Your task to perform on an android device: Show the shopping cart on ebay. Add logitech g903 to the cart on ebay, then select checkout. Image 0: 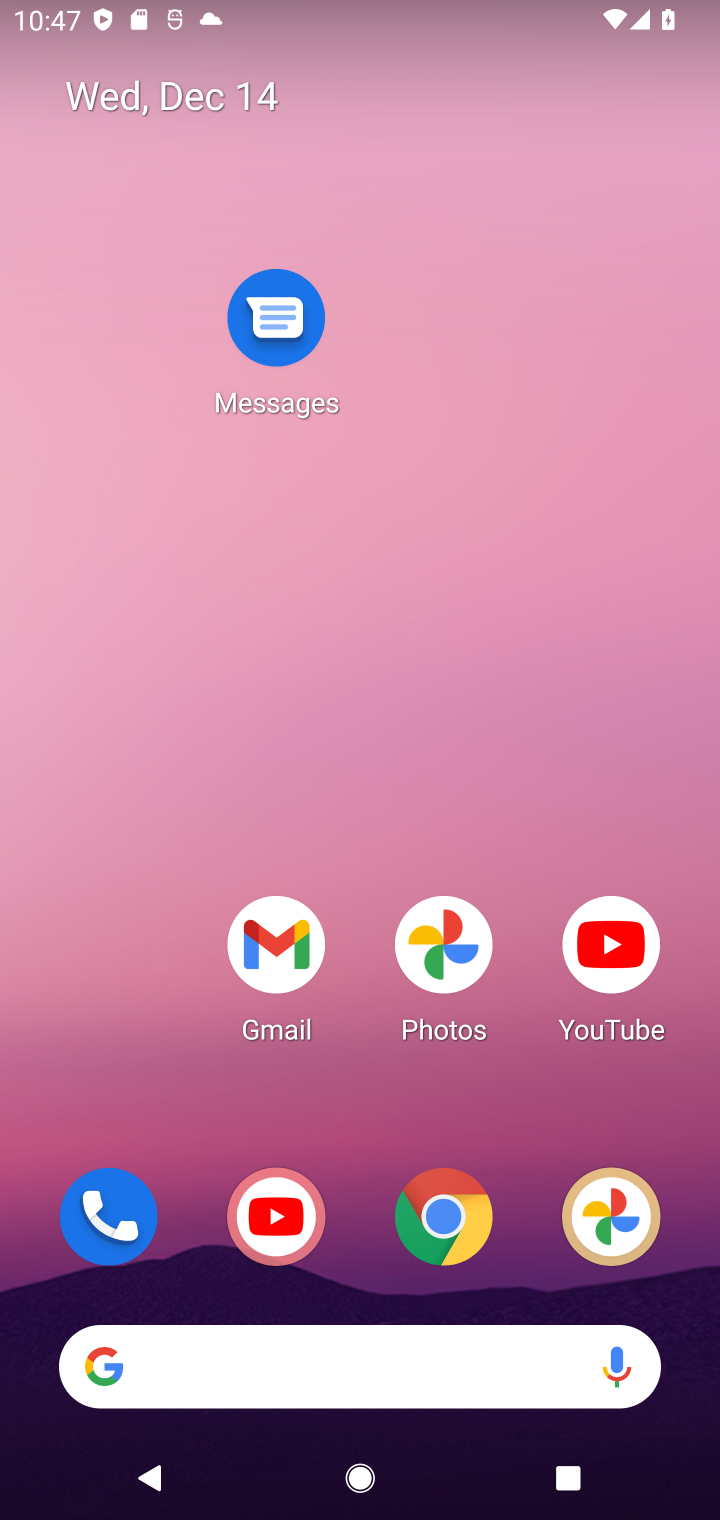
Step 0: drag from (292, 1257) to (437, 241)
Your task to perform on an android device: Show the shopping cart on ebay. Add logitech g903 to the cart on ebay, then select checkout. Image 1: 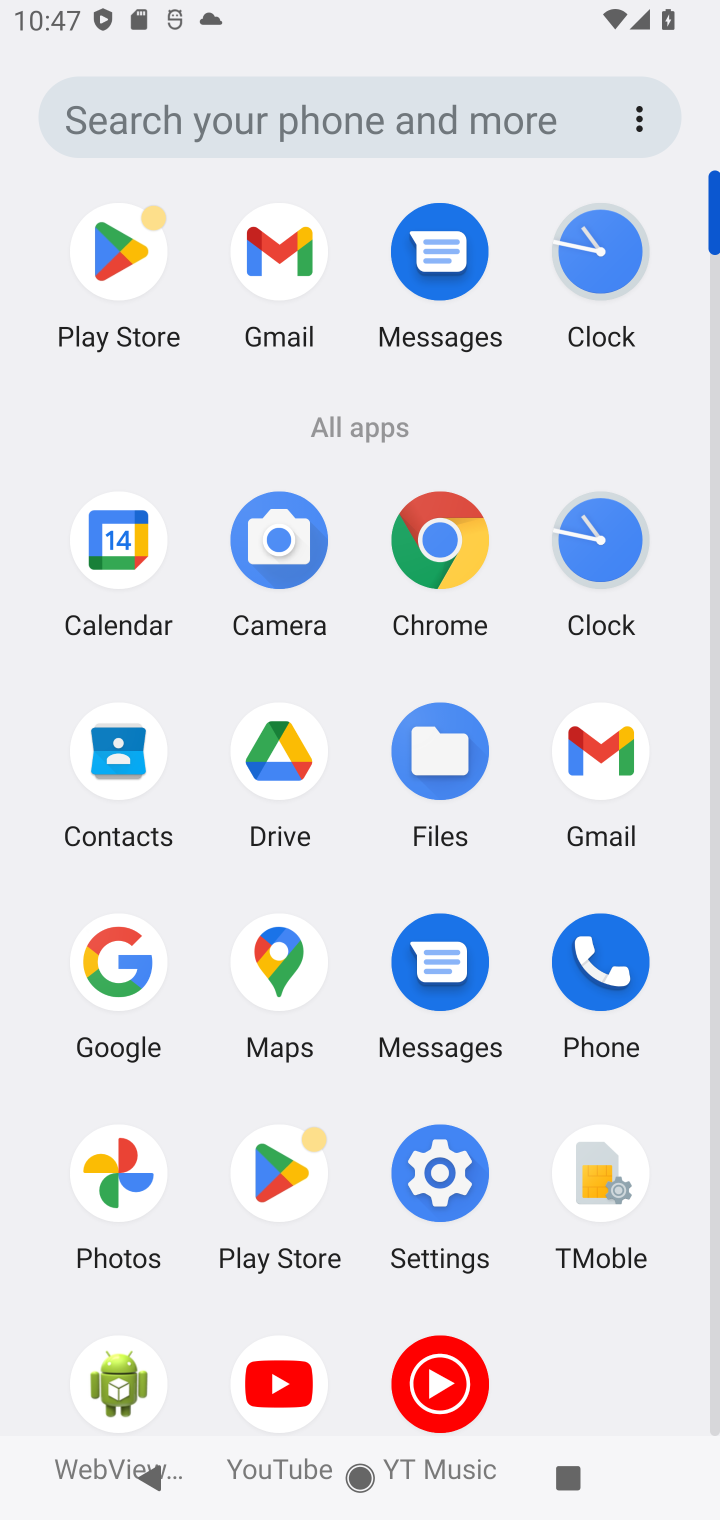
Step 1: click (114, 939)
Your task to perform on an android device: Show the shopping cart on ebay. Add logitech g903 to the cart on ebay, then select checkout. Image 2: 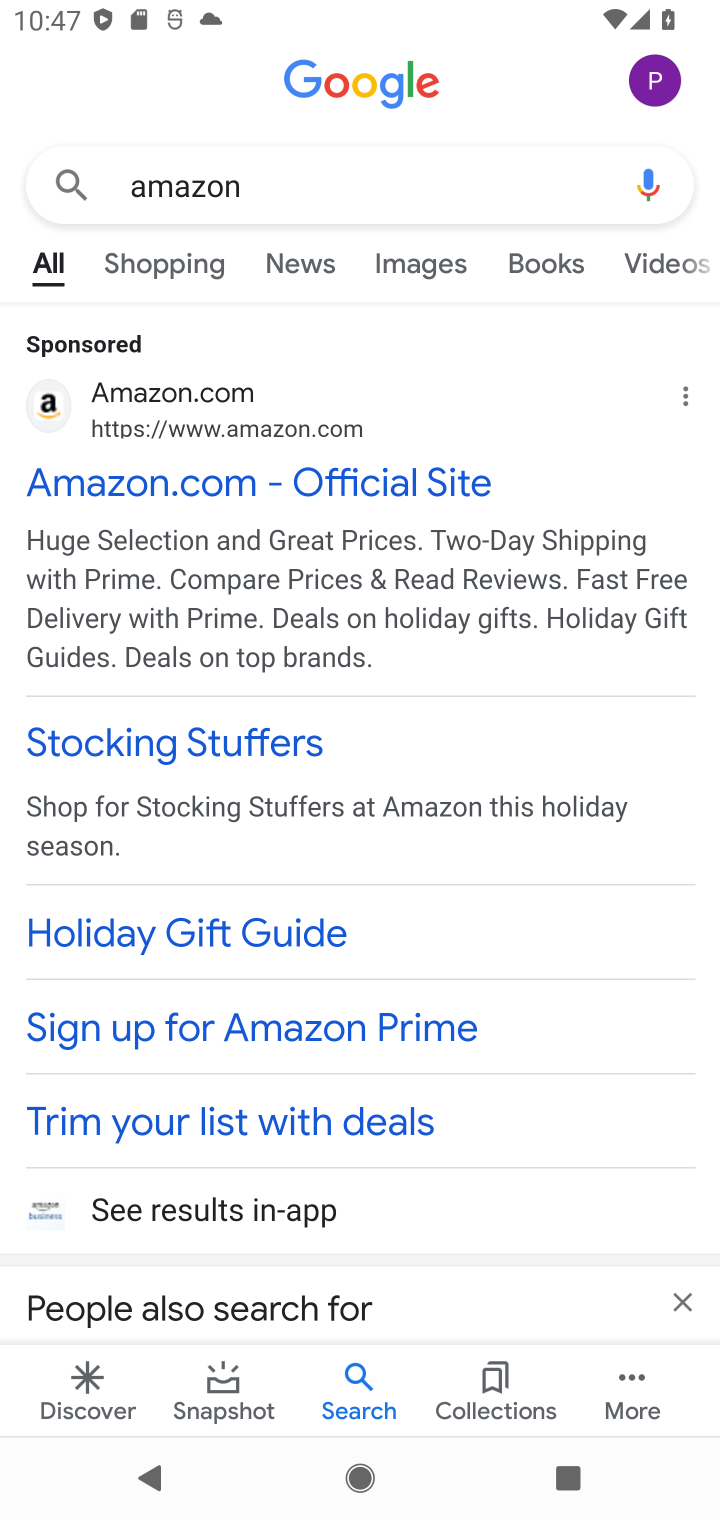
Step 2: click (186, 198)
Your task to perform on an android device: Show the shopping cart on ebay. Add logitech g903 to the cart on ebay, then select checkout. Image 3: 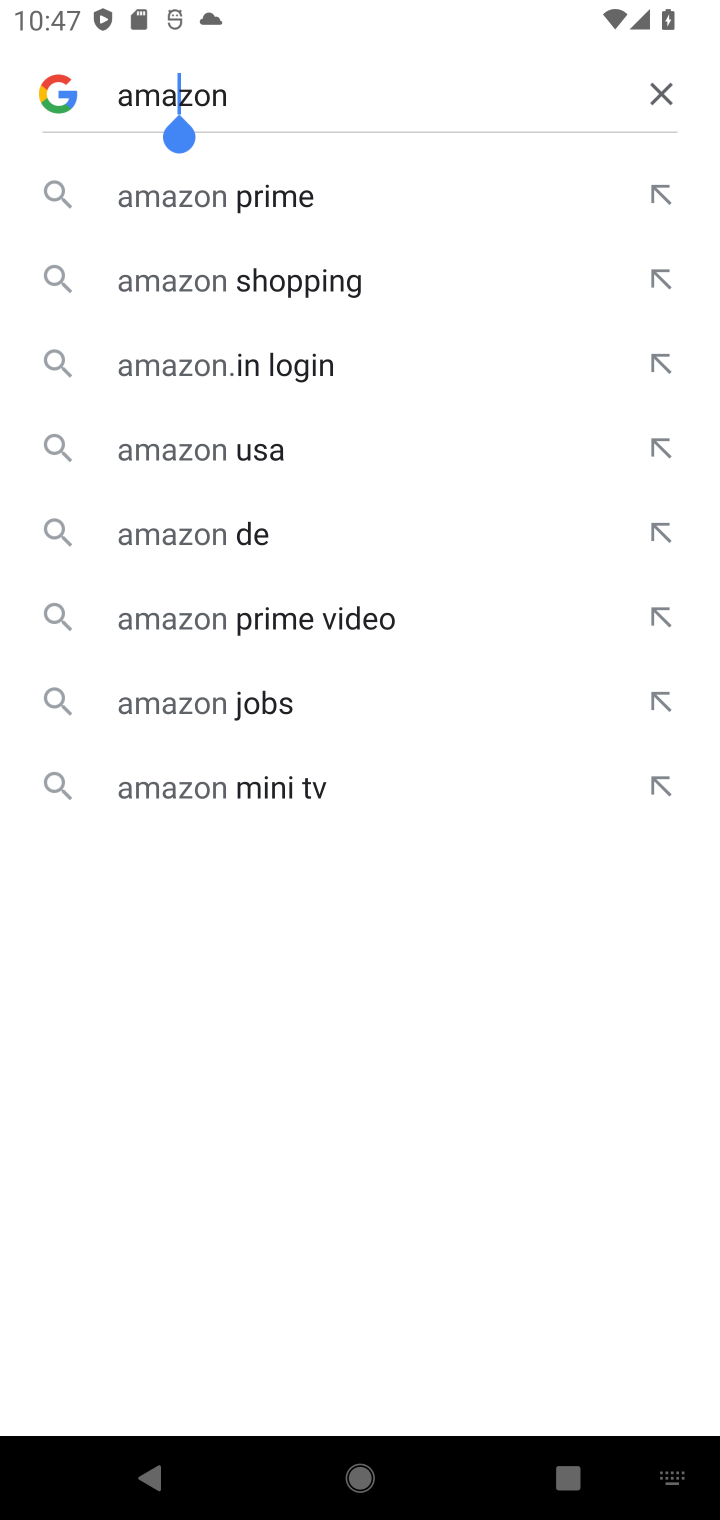
Step 3: click (658, 104)
Your task to perform on an android device: Show the shopping cart on ebay. Add logitech g903 to the cart on ebay, then select checkout. Image 4: 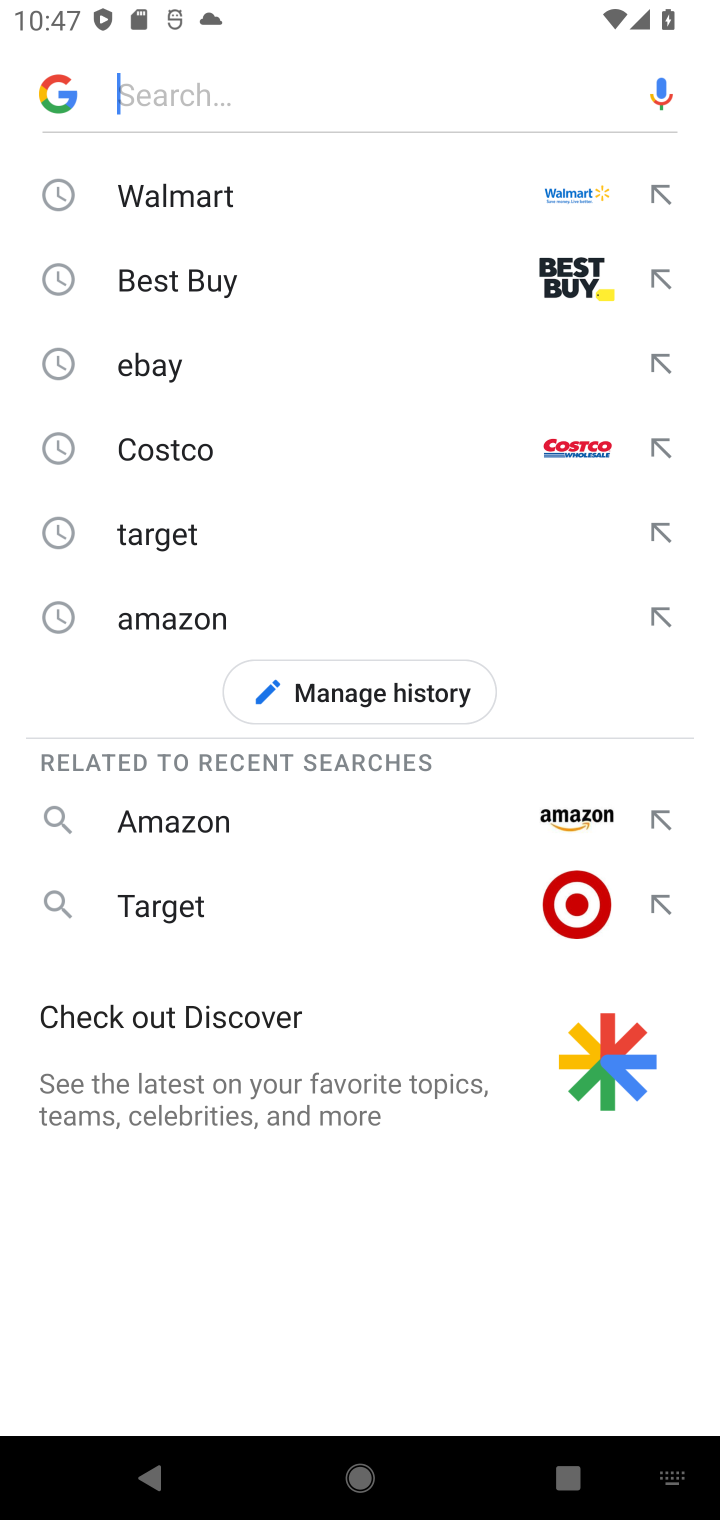
Step 4: click (159, 355)
Your task to perform on an android device: Show the shopping cart on ebay. Add logitech g903 to the cart on ebay, then select checkout. Image 5: 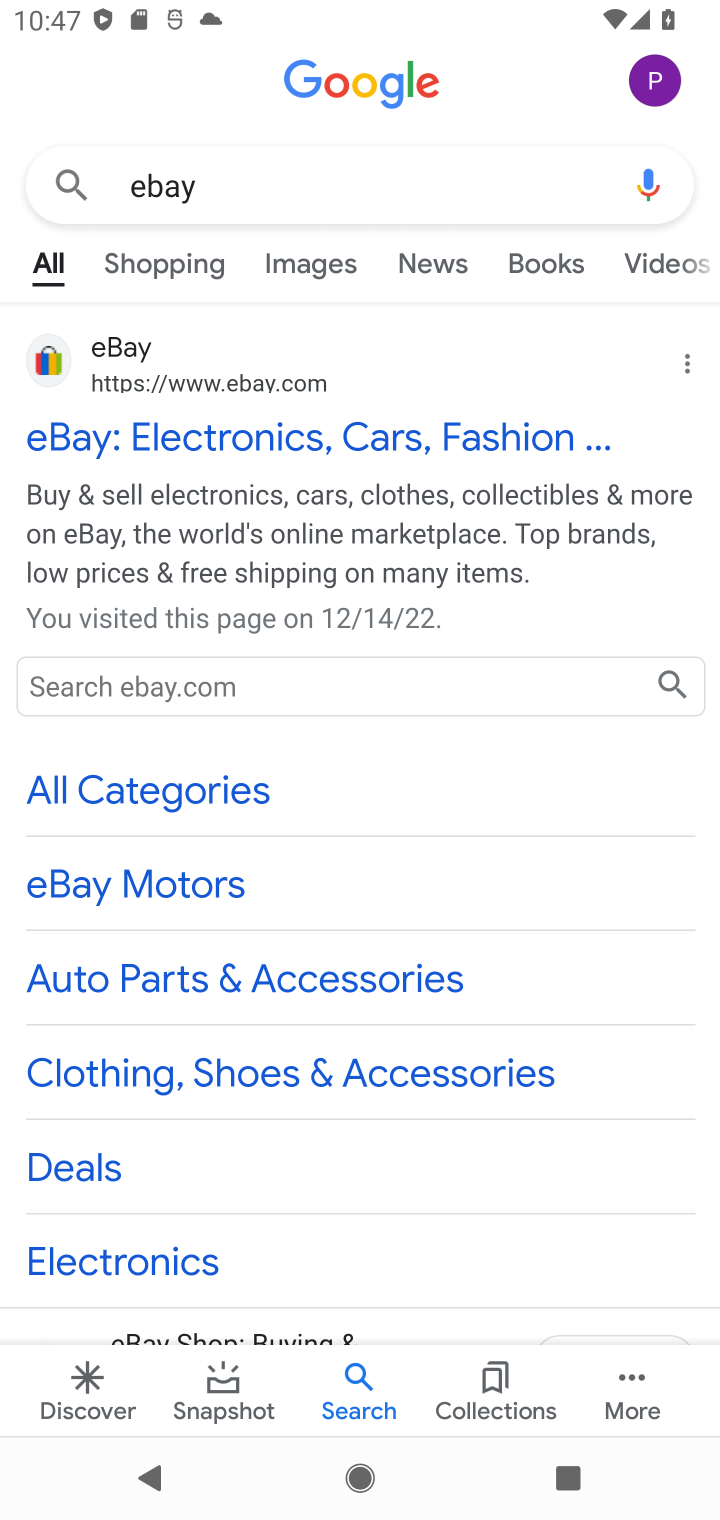
Step 5: click (172, 439)
Your task to perform on an android device: Show the shopping cart on ebay. Add logitech g903 to the cart on ebay, then select checkout. Image 6: 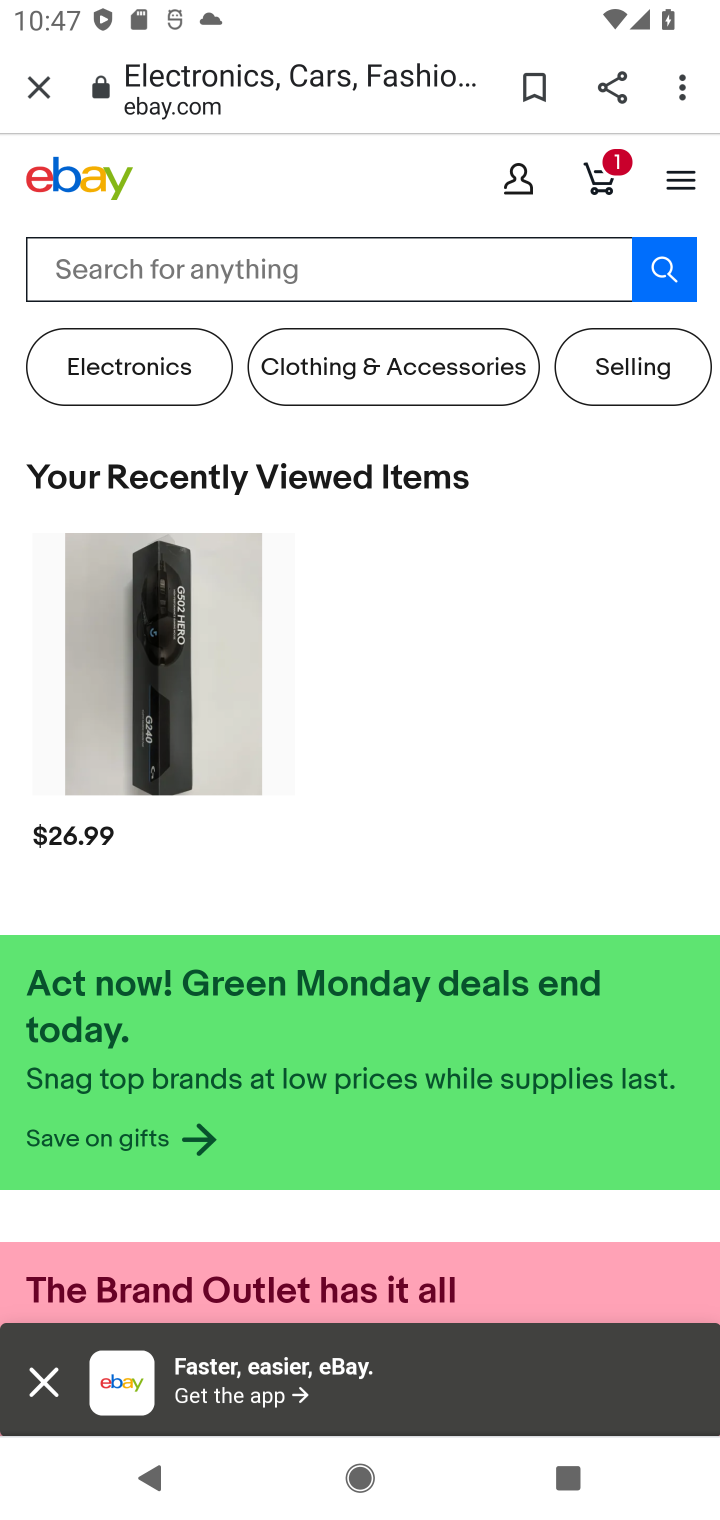
Step 6: click (599, 185)
Your task to perform on an android device: Show the shopping cart on ebay. Add logitech g903 to the cart on ebay, then select checkout. Image 7: 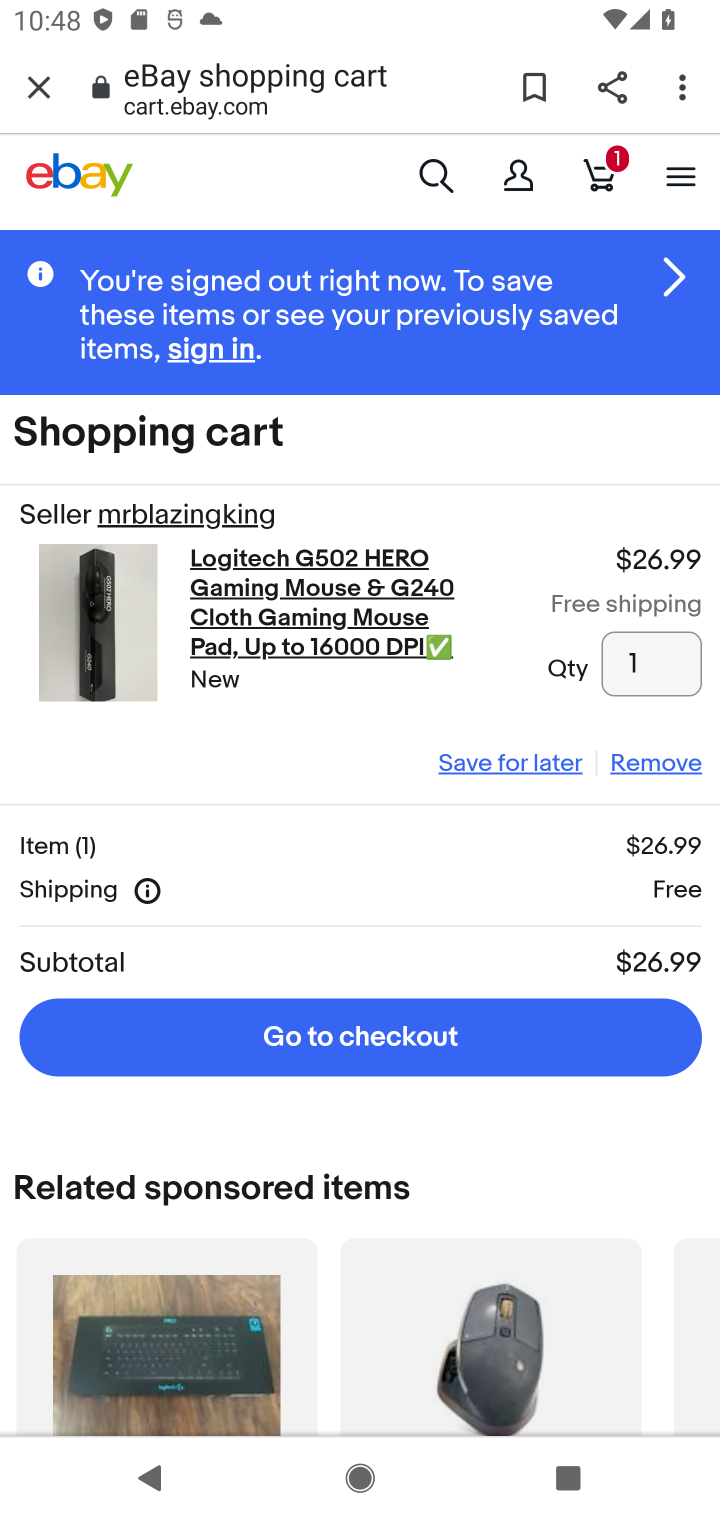
Step 7: click (424, 174)
Your task to perform on an android device: Show the shopping cart on ebay. Add logitech g903 to the cart on ebay, then select checkout. Image 8: 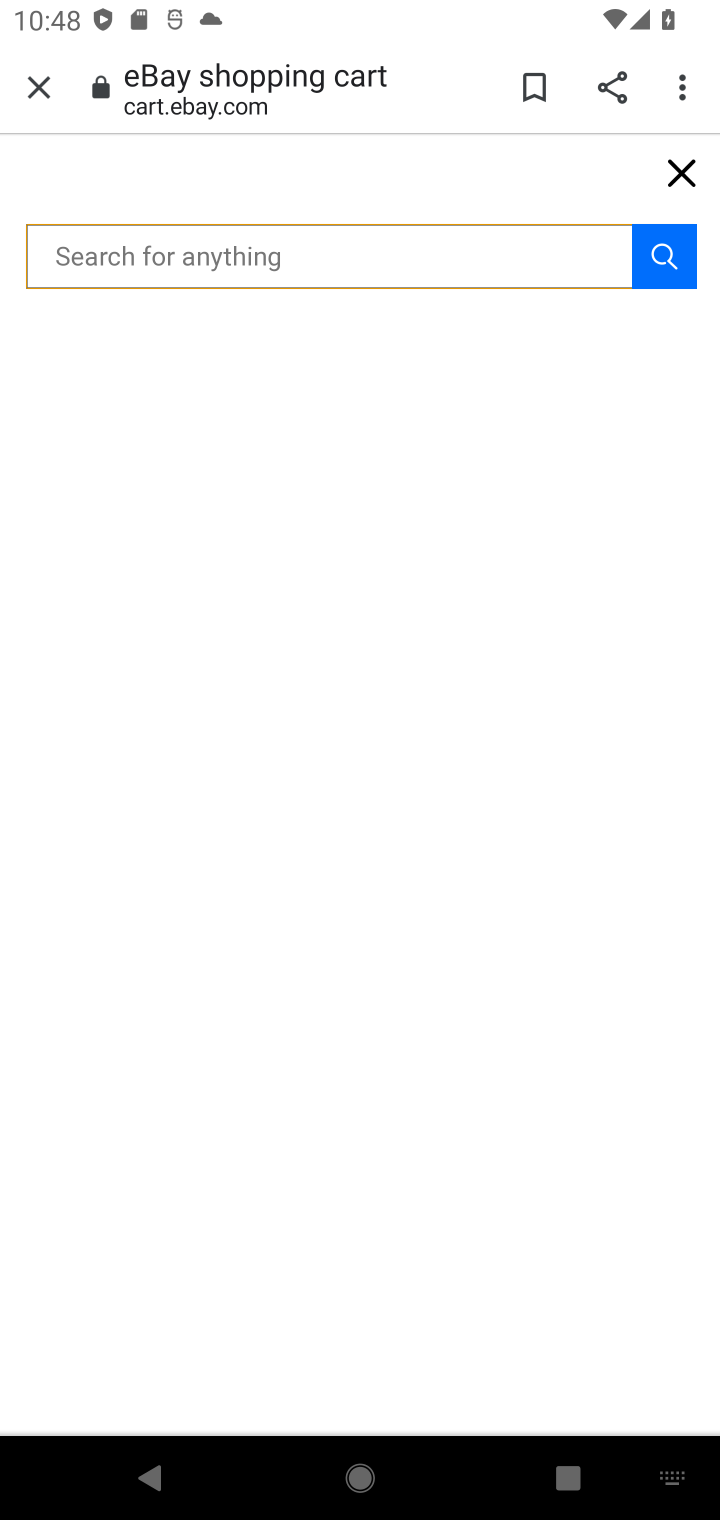
Step 8: type "logitech g903"
Your task to perform on an android device: Show the shopping cart on ebay. Add logitech g903 to the cart on ebay, then select checkout. Image 9: 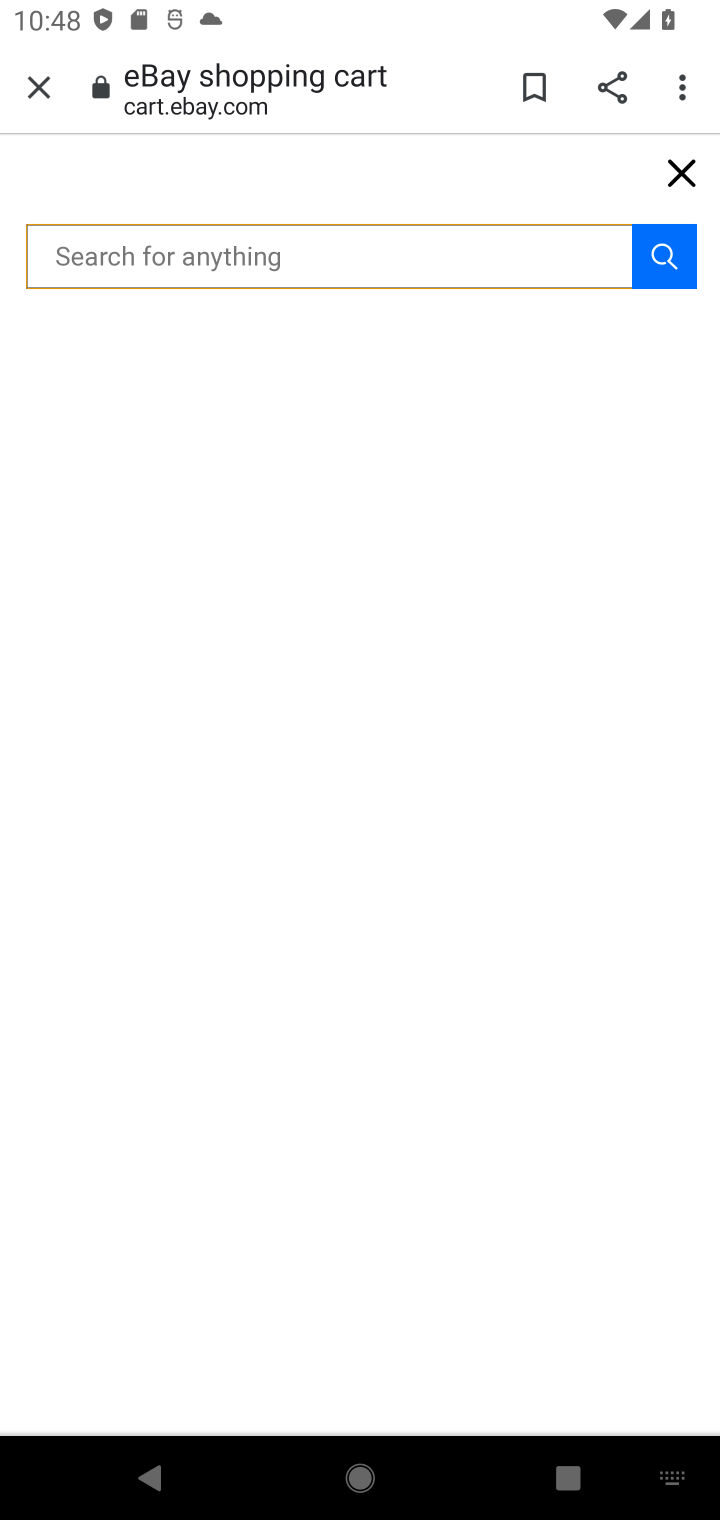
Step 9: click (683, 251)
Your task to perform on an android device: Show the shopping cart on ebay. Add logitech g903 to the cart on ebay, then select checkout. Image 10: 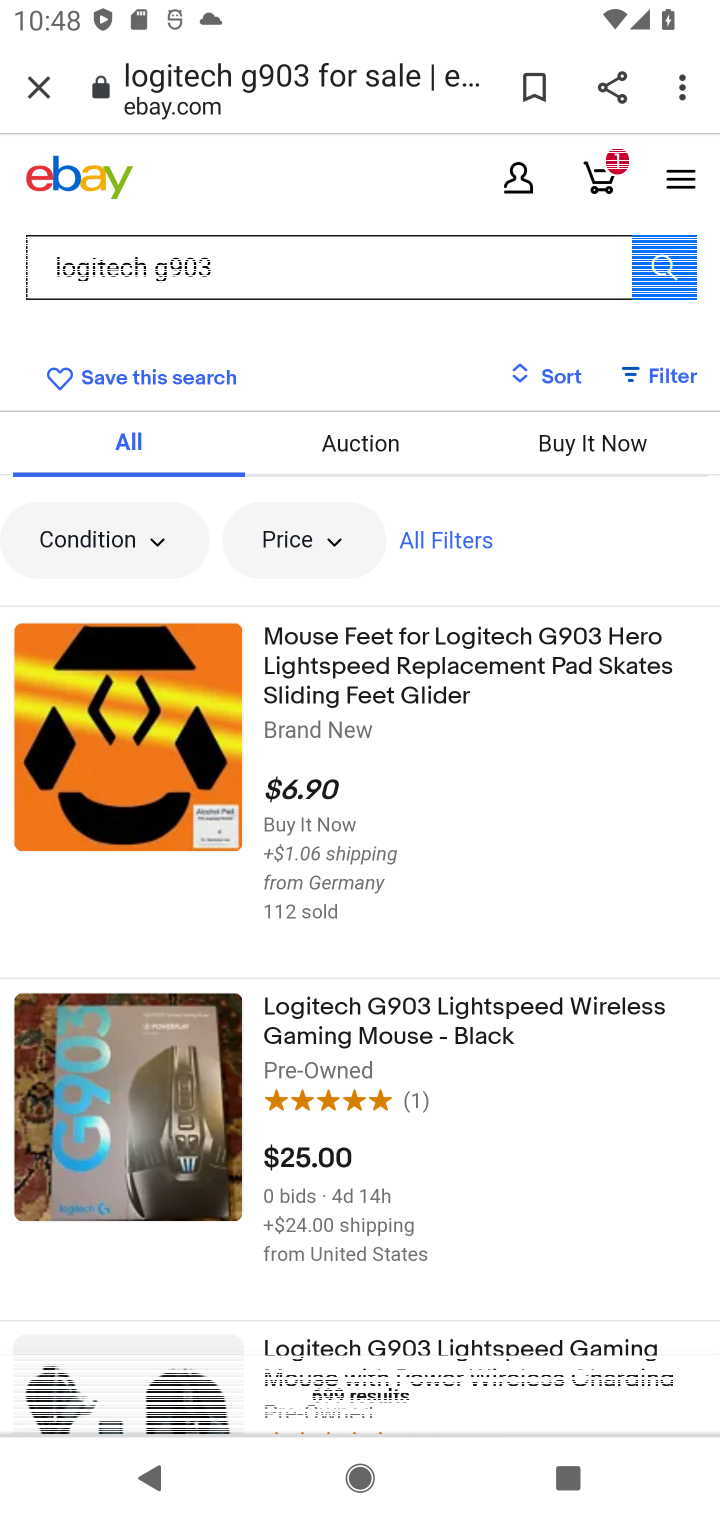
Step 10: click (309, 676)
Your task to perform on an android device: Show the shopping cart on ebay. Add logitech g903 to the cart on ebay, then select checkout. Image 11: 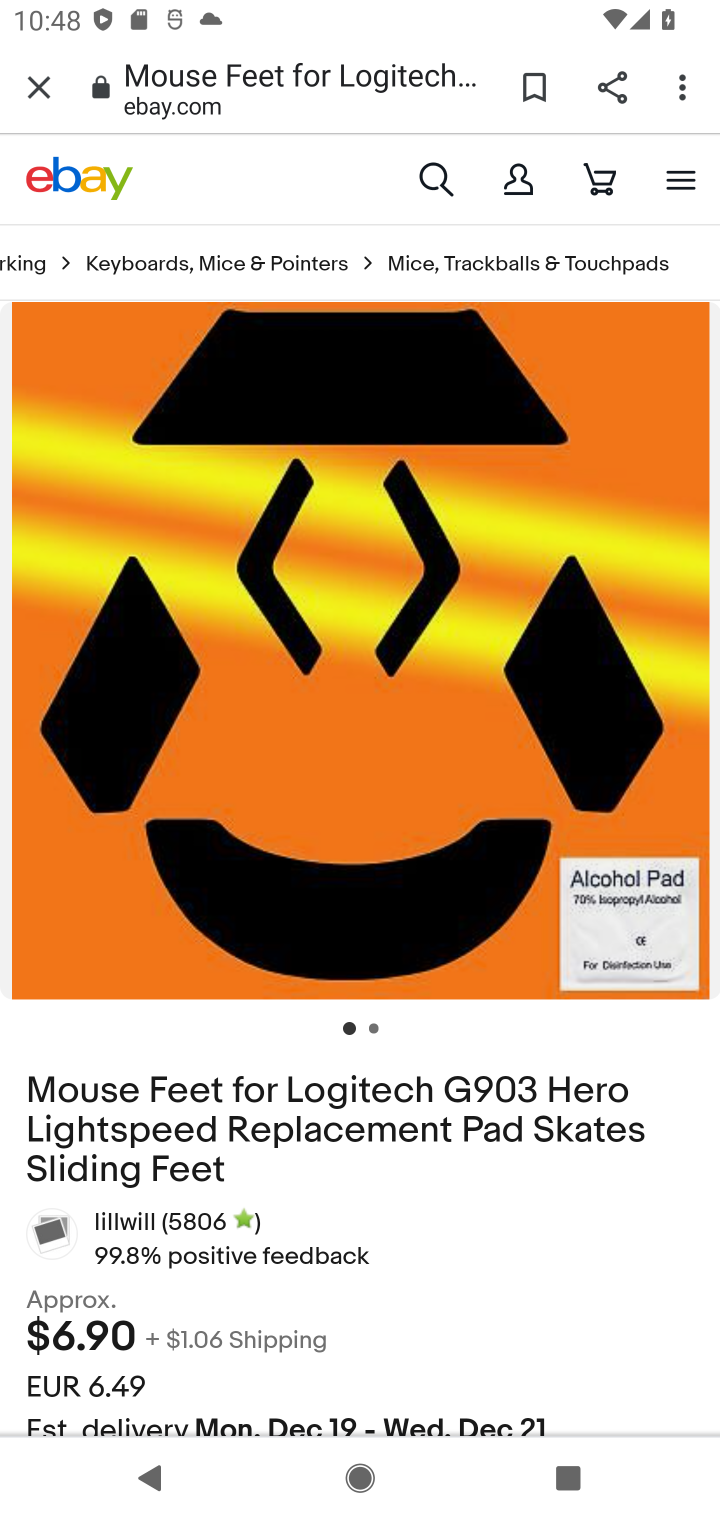
Step 11: drag from (355, 1235) to (355, 659)
Your task to perform on an android device: Show the shopping cart on ebay. Add logitech g903 to the cart on ebay, then select checkout. Image 12: 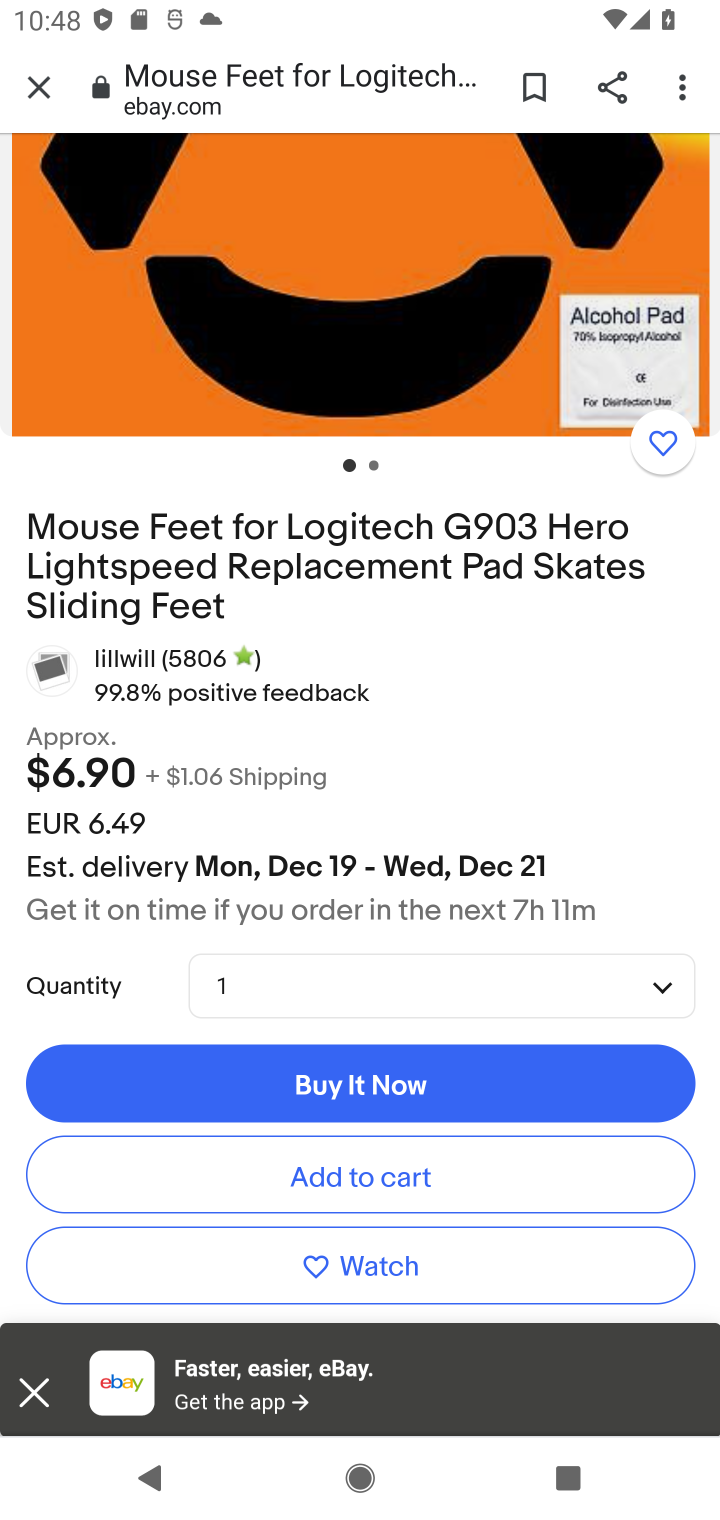
Step 12: click (386, 1167)
Your task to perform on an android device: Show the shopping cart on ebay. Add logitech g903 to the cart on ebay, then select checkout. Image 13: 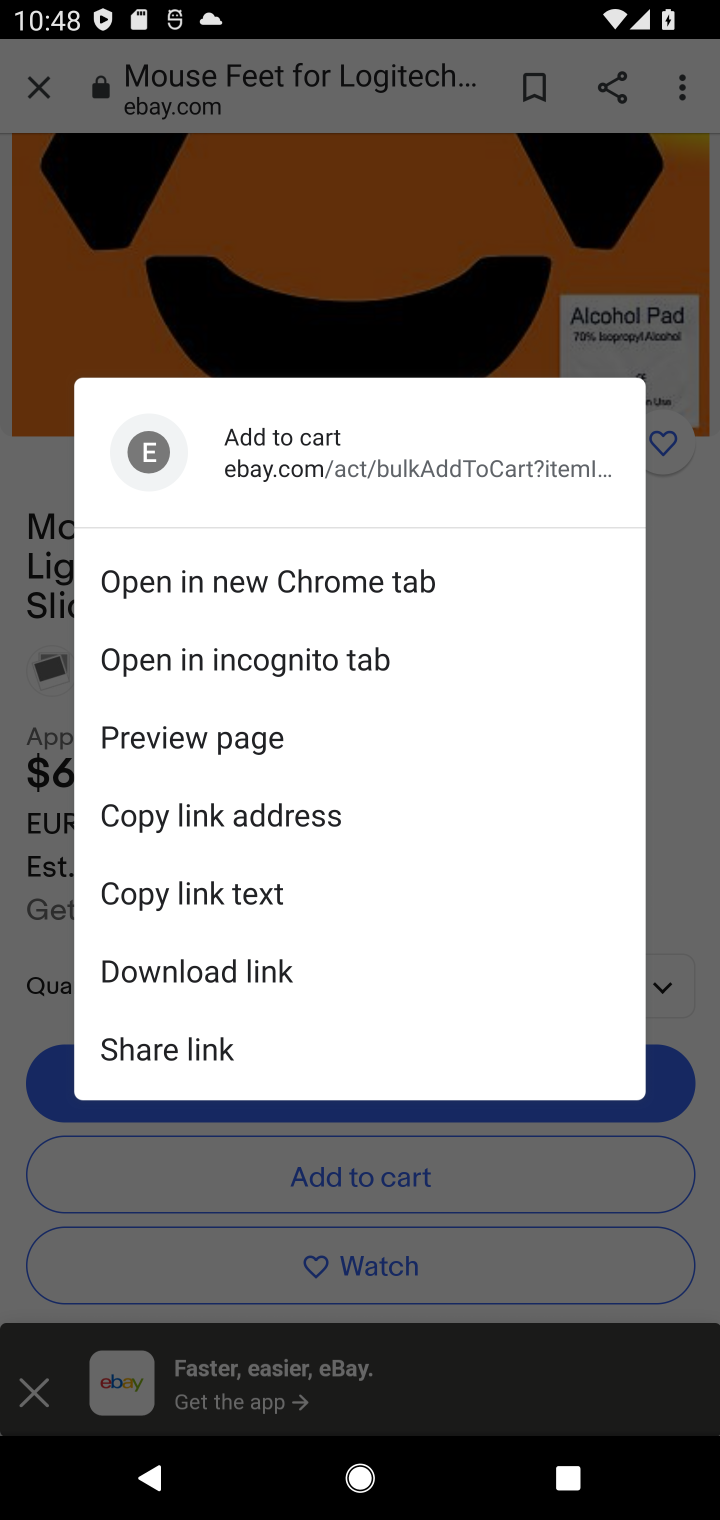
Step 13: click (680, 878)
Your task to perform on an android device: Show the shopping cart on ebay. Add logitech g903 to the cart on ebay, then select checkout. Image 14: 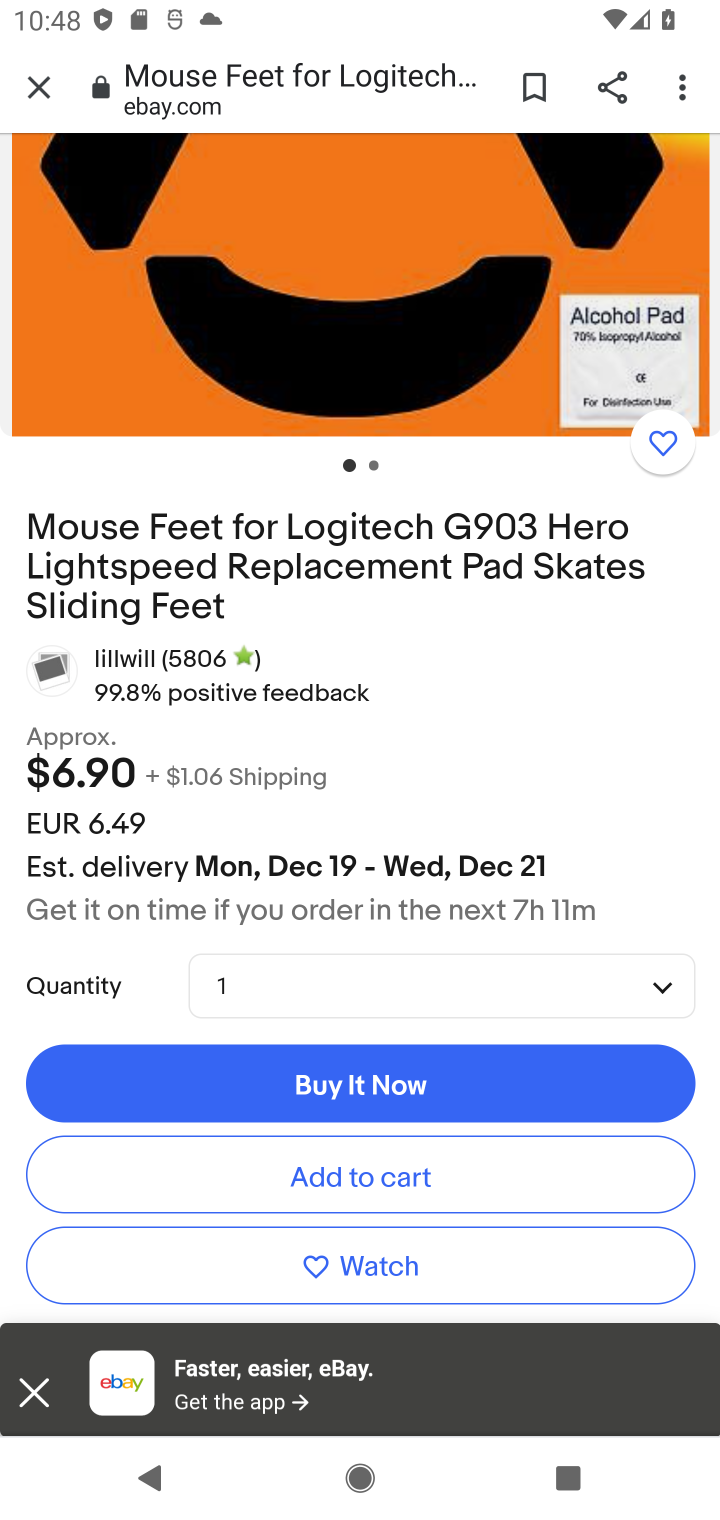
Step 14: click (386, 1177)
Your task to perform on an android device: Show the shopping cart on ebay. Add logitech g903 to the cart on ebay, then select checkout. Image 15: 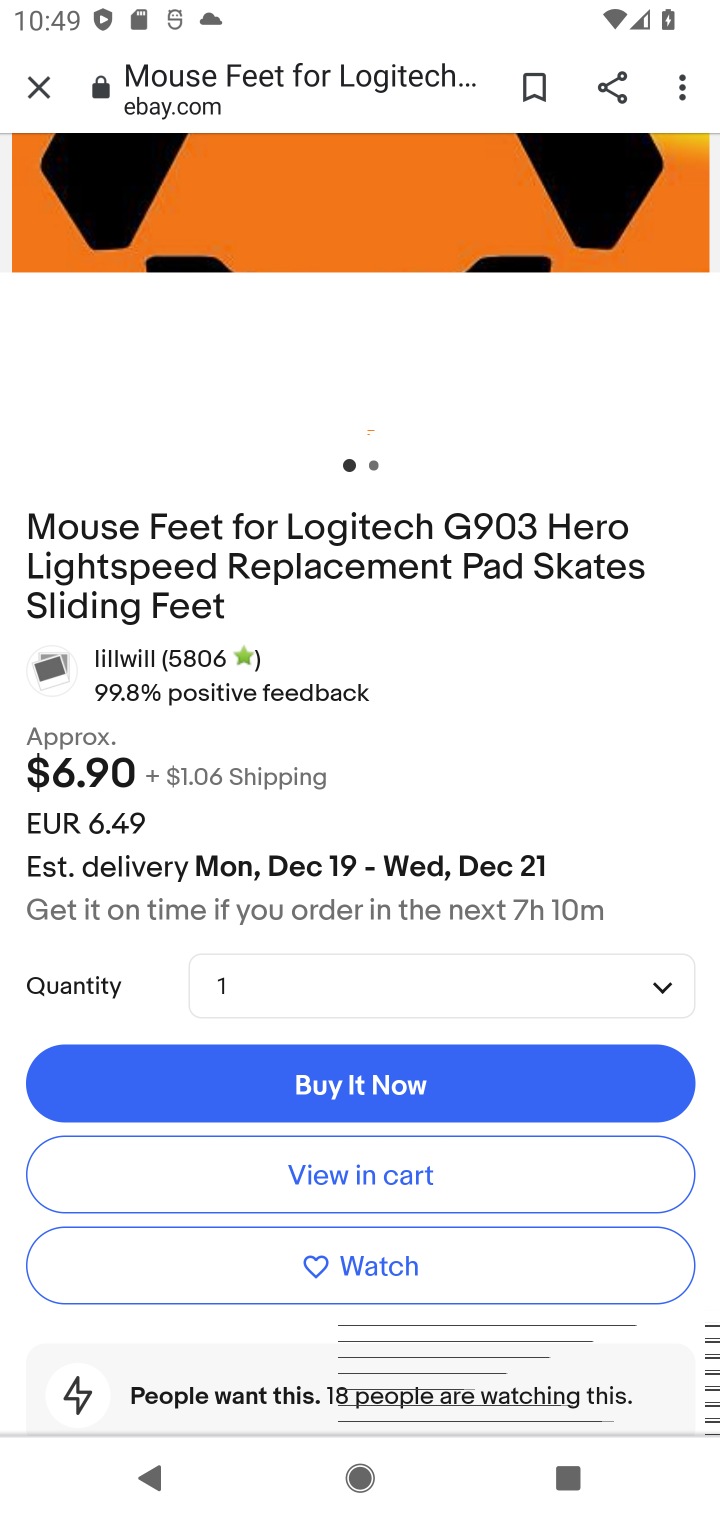
Step 15: click (386, 1177)
Your task to perform on an android device: Show the shopping cart on ebay. Add logitech g903 to the cart on ebay, then select checkout. Image 16: 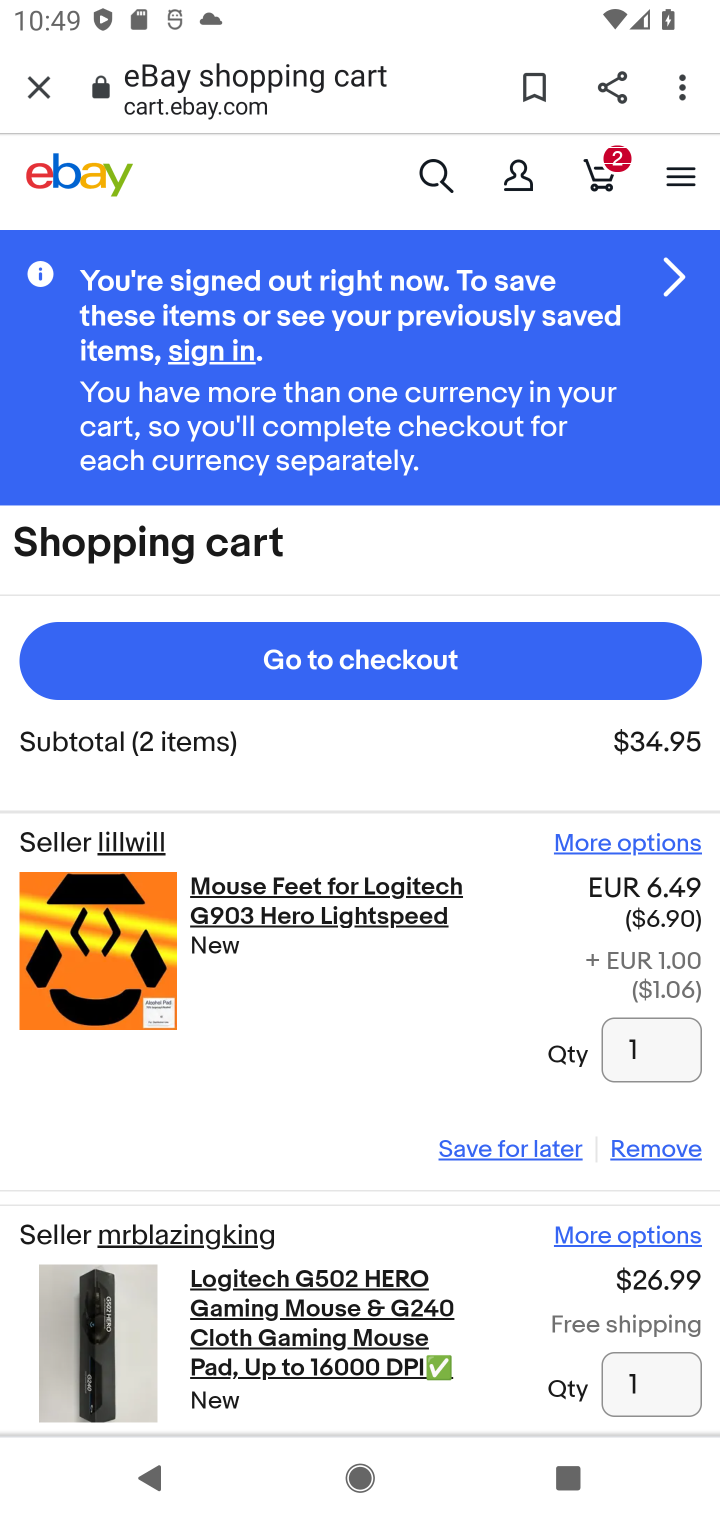
Step 16: click (353, 665)
Your task to perform on an android device: Show the shopping cart on ebay. Add logitech g903 to the cart on ebay, then select checkout. Image 17: 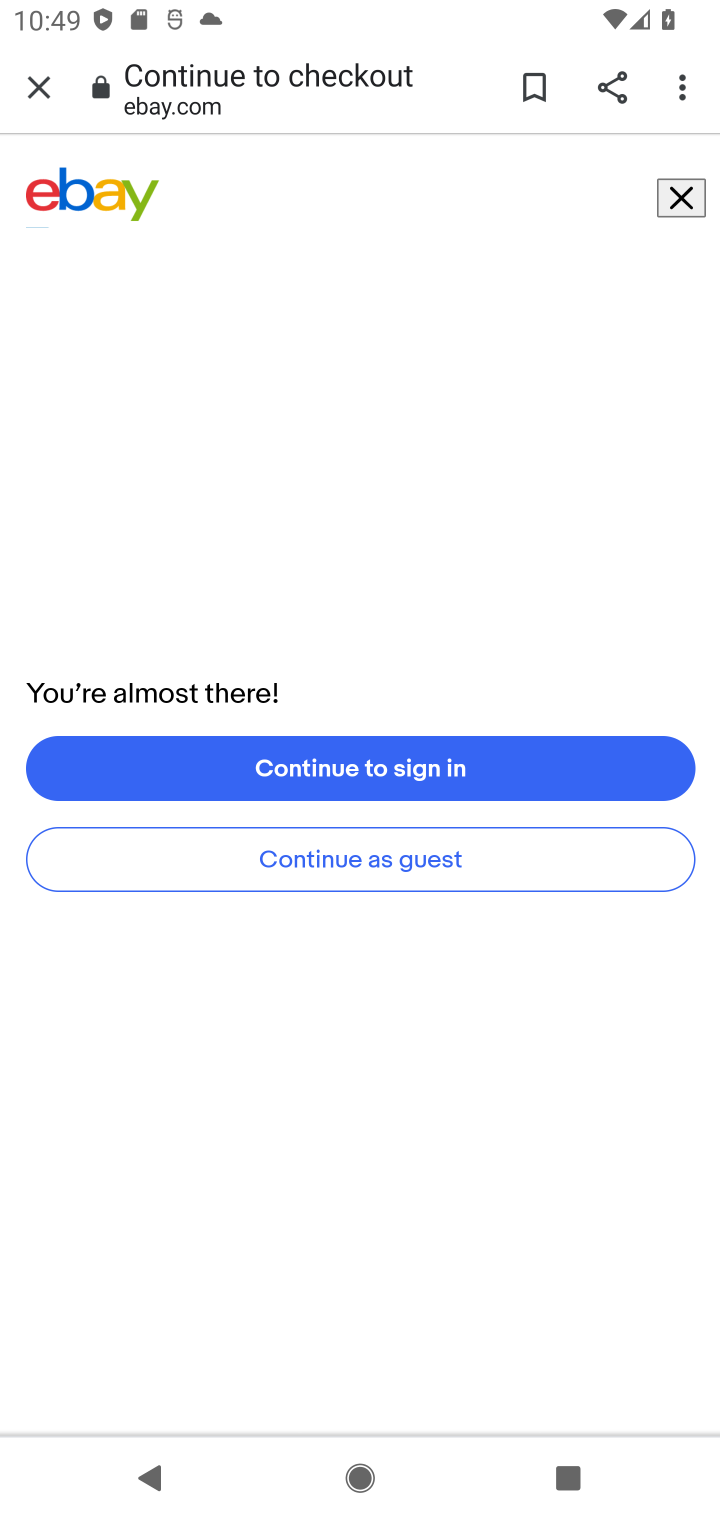
Step 17: task complete